Your task to perform on an android device: turn off airplane mode Image 0: 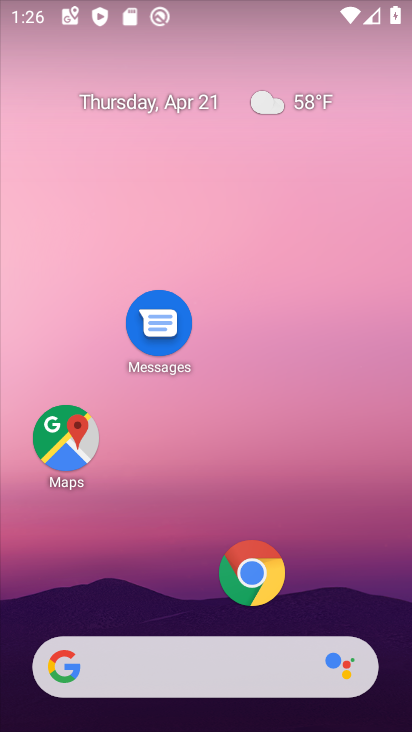
Step 0: drag from (165, 535) to (207, 53)
Your task to perform on an android device: turn off airplane mode Image 1: 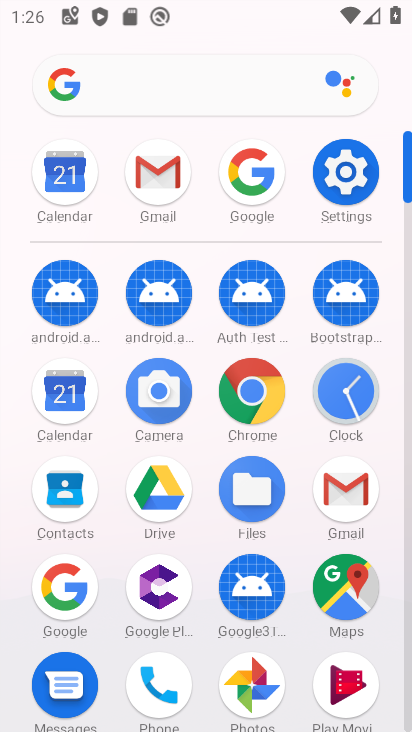
Step 1: click (343, 163)
Your task to perform on an android device: turn off airplane mode Image 2: 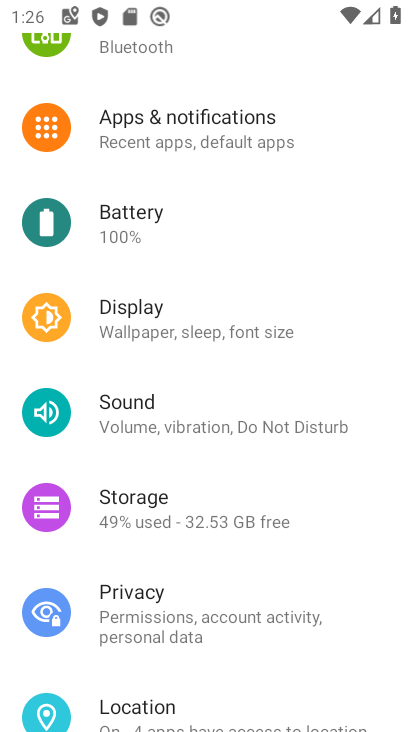
Step 2: drag from (188, 129) to (226, 659)
Your task to perform on an android device: turn off airplane mode Image 3: 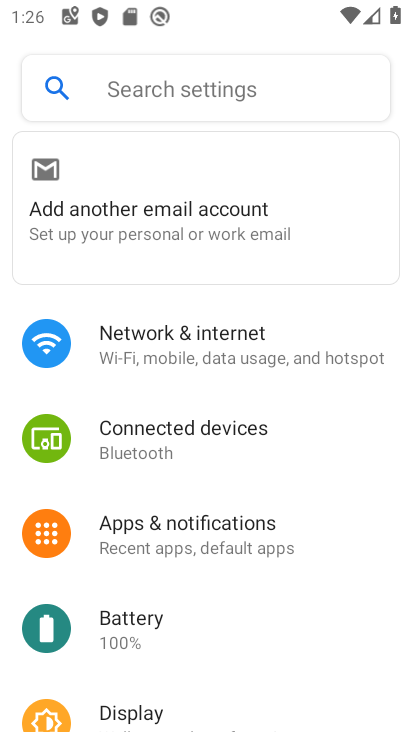
Step 3: click (184, 354)
Your task to perform on an android device: turn off airplane mode Image 4: 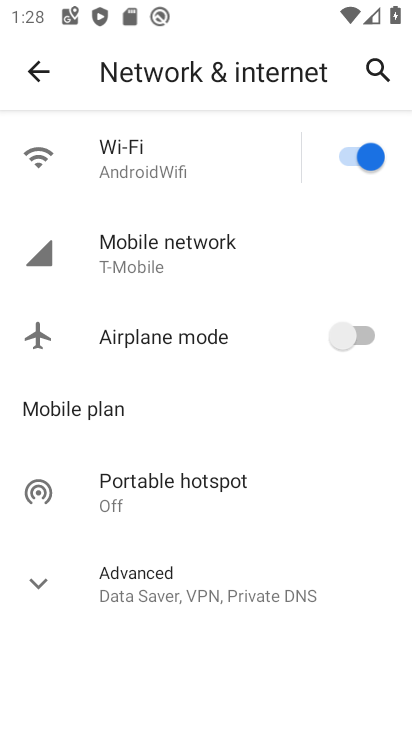
Step 4: task complete